Your task to perform on an android device: turn notification dots on Image 0: 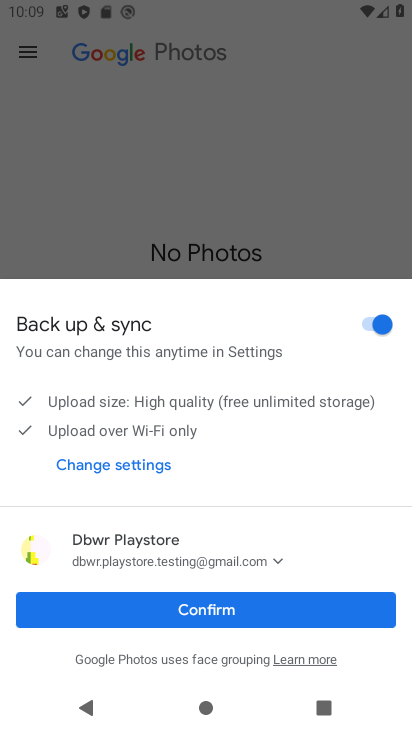
Step 0: press back button
Your task to perform on an android device: turn notification dots on Image 1: 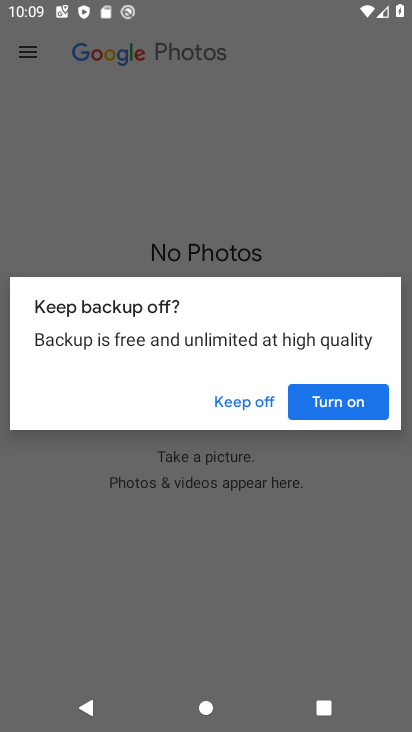
Step 1: press back button
Your task to perform on an android device: turn notification dots on Image 2: 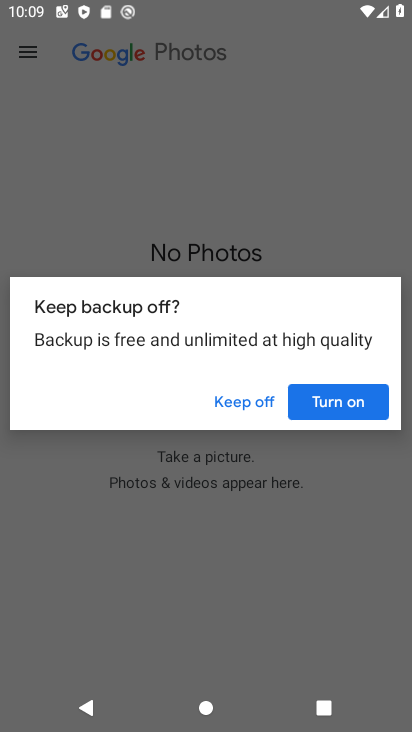
Step 2: press home button
Your task to perform on an android device: turn notification dots on Image 3: 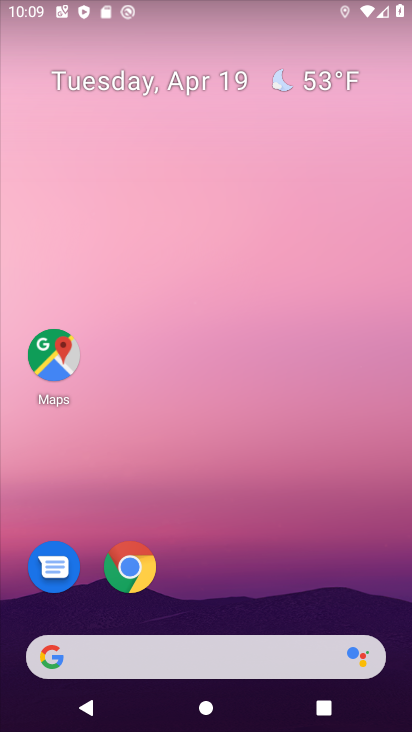
Step 3: drag from (272, 614) to (216, 183)
Your task to perform on an android device: turn notification dots on Image 4: 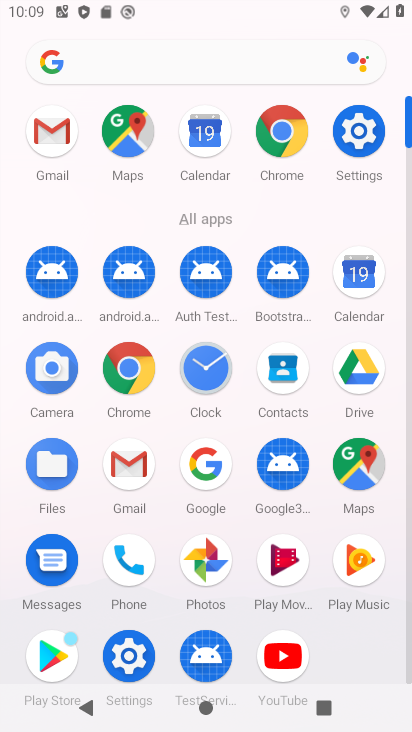
Step 4: click (356, 135)
Your task to perform on an android device: turn notification dots on Image 5: 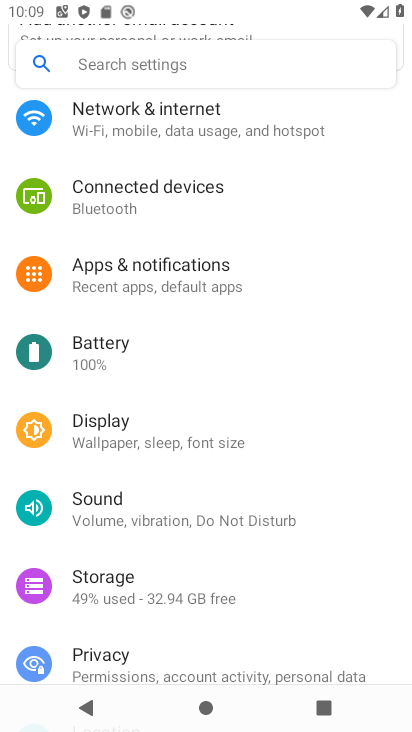
Step 5: click (315, 280)
Your task to perform on an android device: turn notification dots on Image 6: 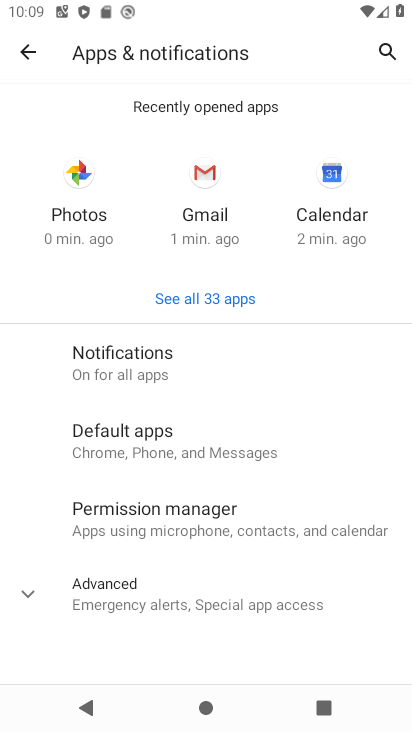
Step 6: click (300, 369)
Your task to perform on an android device: turn notification dots on Image 7: 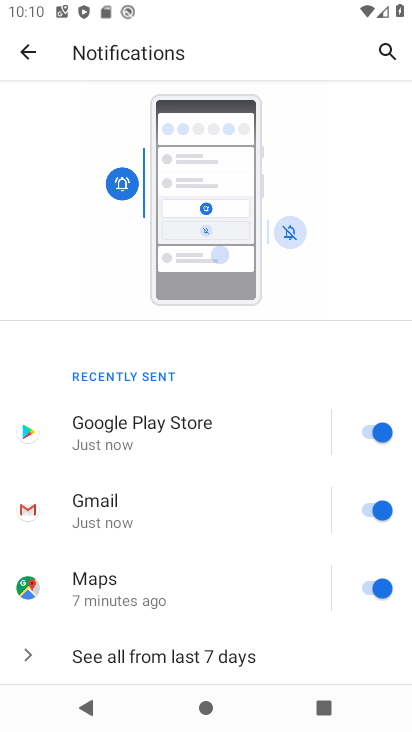
Step 7: drag from (273, 621) to (256, 100)
Your task to perform on an android device: turn notification dots on Image 8: 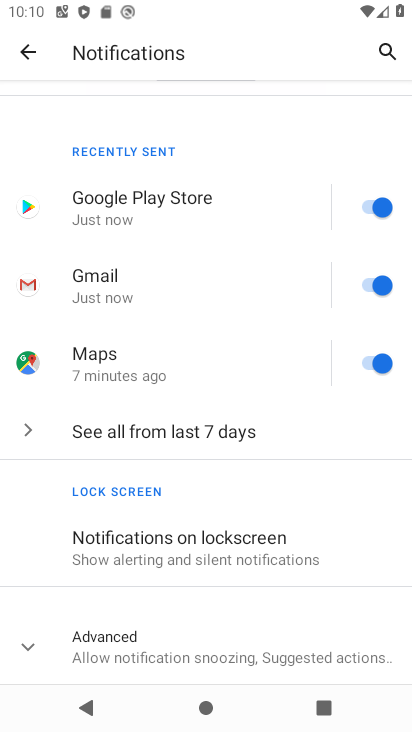
Step 8: click (286, 648)
Your task to perform on an android device: turn notification dots on Image 9: 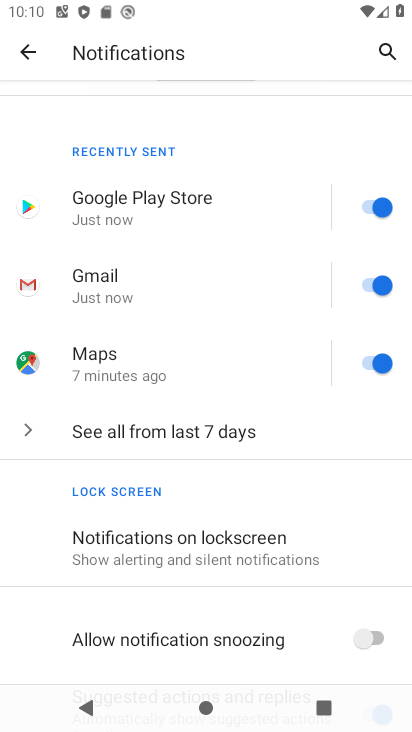
Step 9: task complete